Your task to perform on an android device: all mails in gmail Image 0: 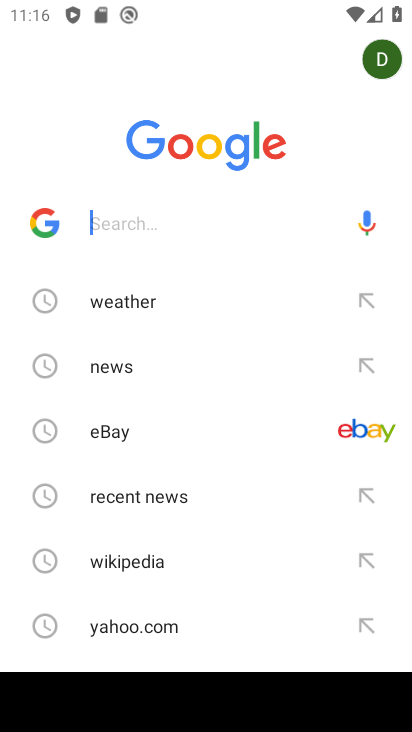
Step 0: drag from (246, 534) to (348, 75)
Your task to perform on an android device: all mails in gmail Image 1: 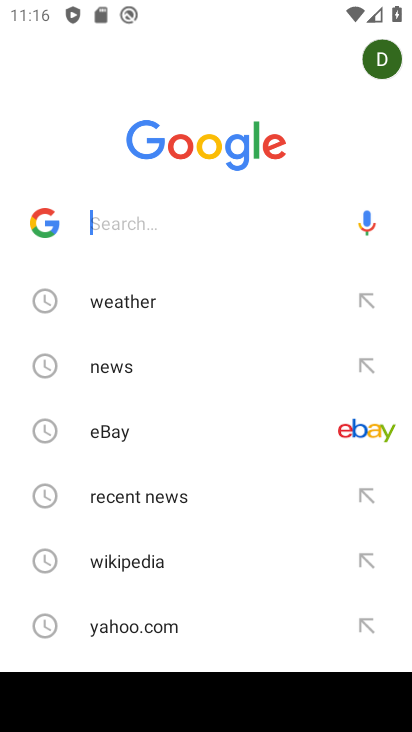
Step 1: press home button
Your task to perform on an android device: all mails in gmail Image 2: 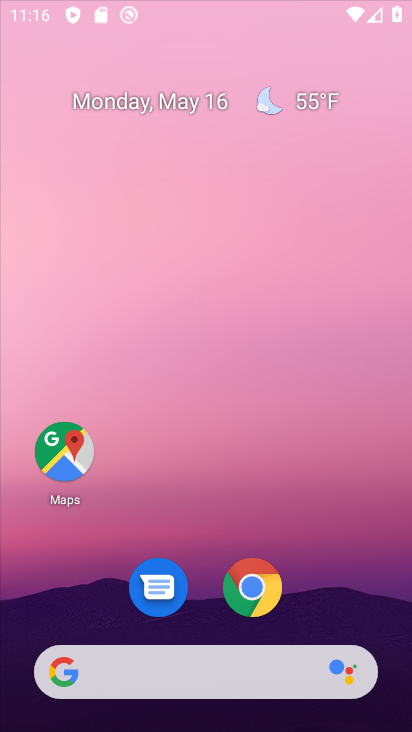
Step 2: drag from (203, 547) to (285, 199)
Your task to perform on an android device: all mails in gmail Image 3: 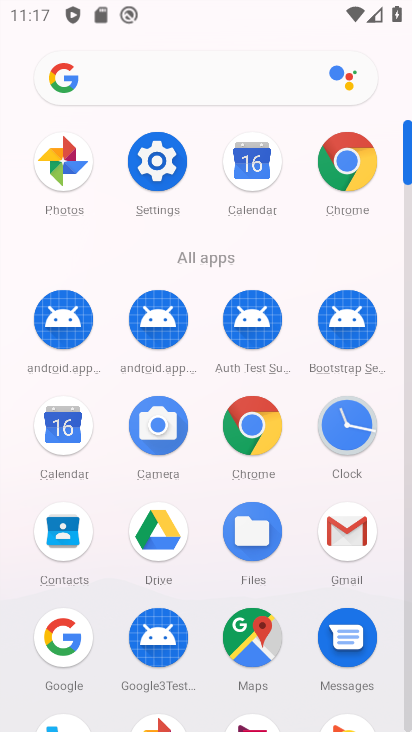
Step 3: click (345, 538)
Your task to perform on an android device: all mails in gmail Image 4: 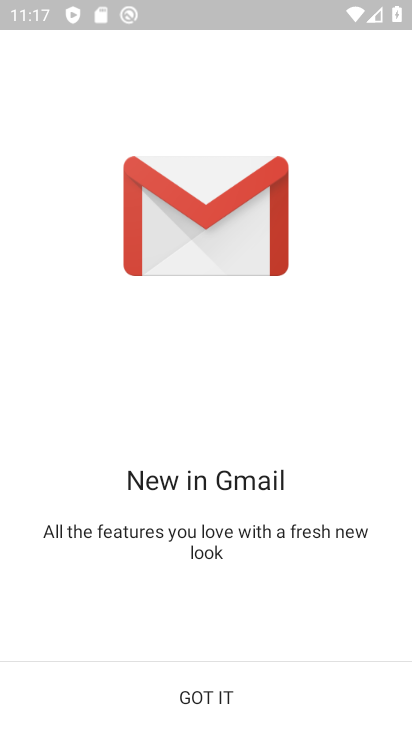
Step 4: drag from (251, 607) to (314, 308)
Your task to perform on an android device: all mails in gmail Image 5: 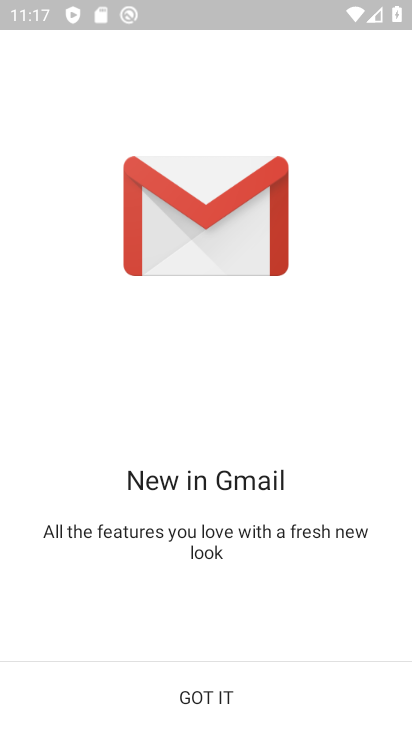
Step 5: click (202, 693)
Your task to perform on an android device: all mails in gmail Image 6: 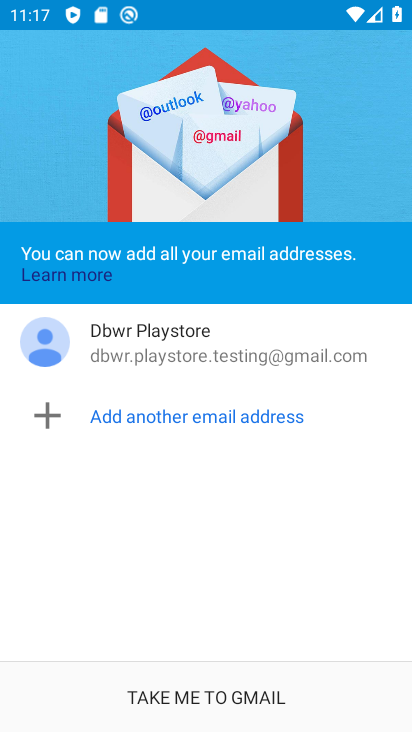
Step 6: click (211, 713)
Your task to perform on an android device: all mails in gmail Image 7: 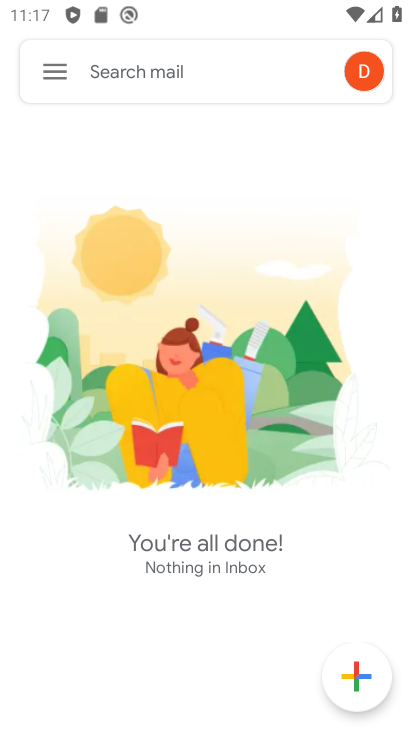
Step 7: click (55, 65)
Your task to perform on an android device: all mails in gmail Image 8: 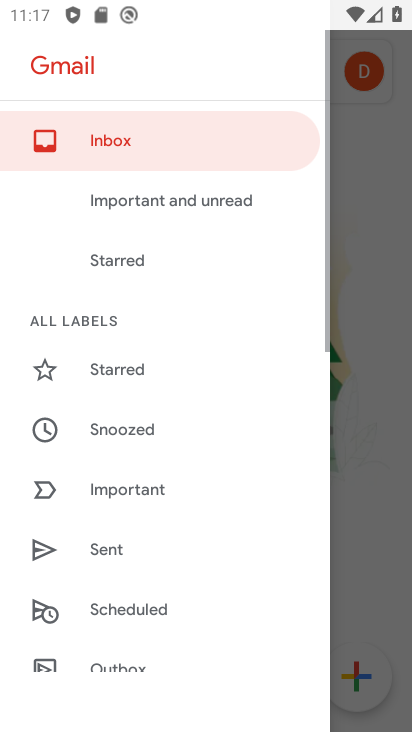
Step 8: drag from (183, 616) to (224, 122)
Your task to perform on an android device: all mails in gmail Image 9: 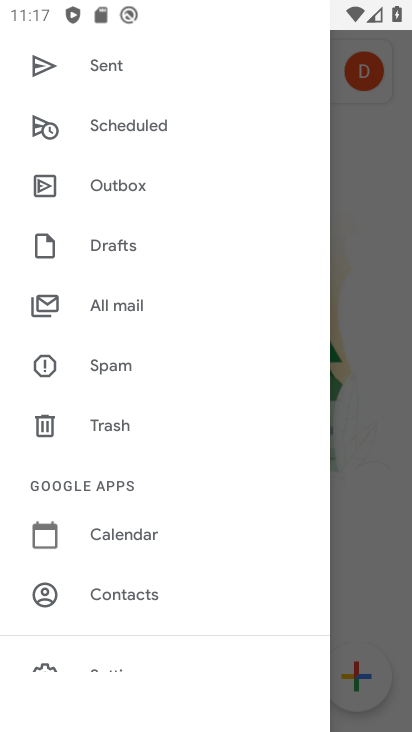
Step 9: click (124, 304)
Your task to perform on an android device: all mails in gmail Image 10: 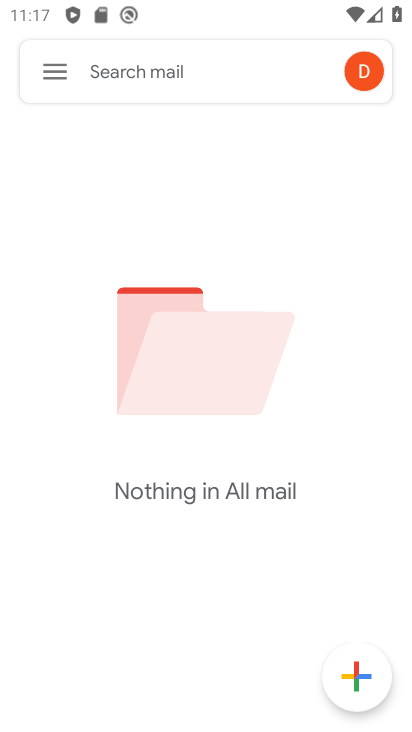
Step 10: task complete